Your task to perform on an android device: What is the capital of Italy? Image 0: 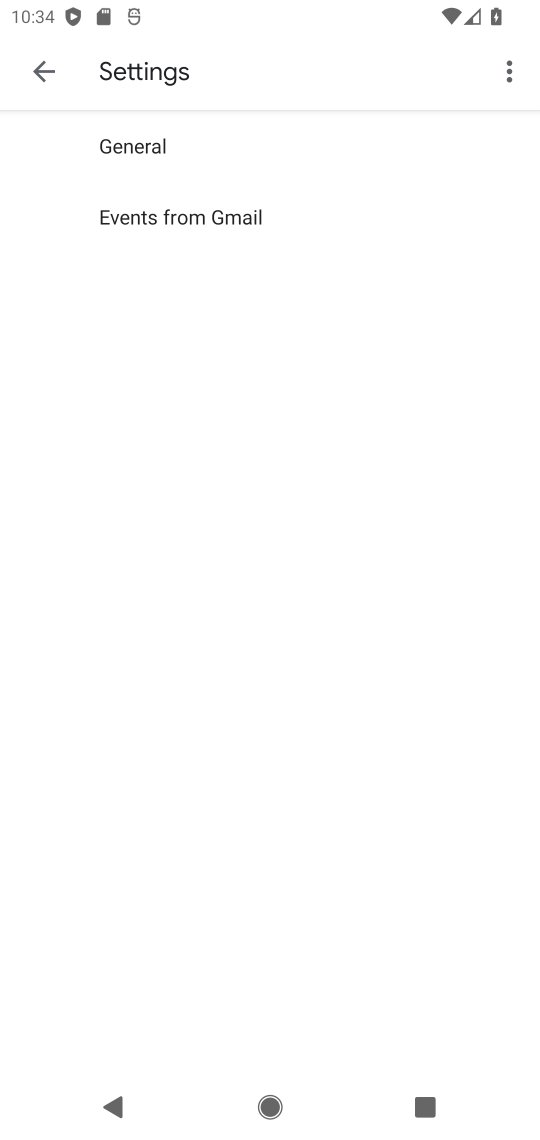
Step 0: press home button
Your task to perform on an android device: What is the capital of Italy? Image 1: 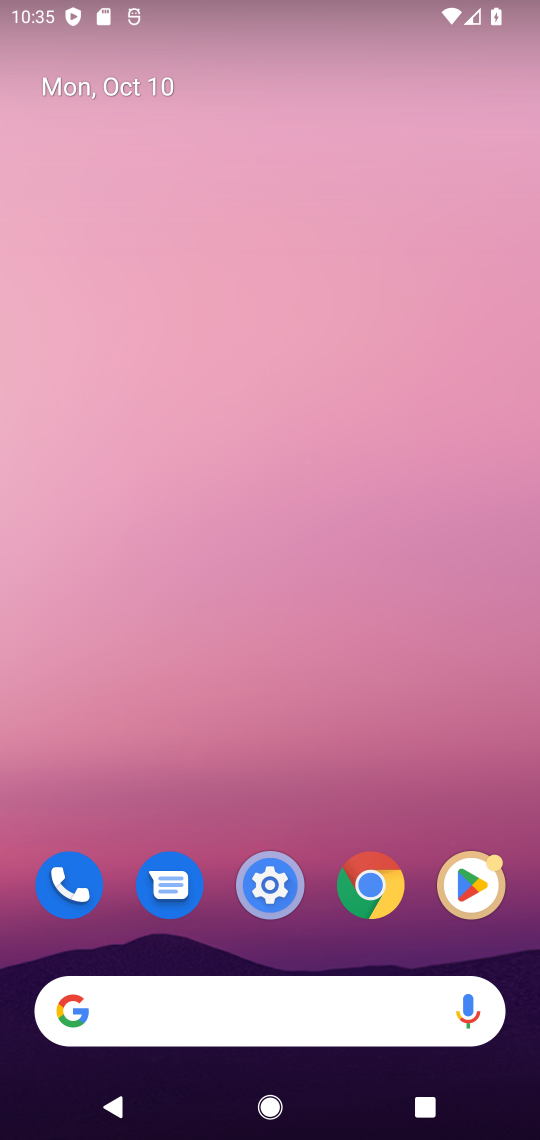
Step 1: drag from (310, 952) to (380, 21)
Your task to perform on an android device: What is the capital of Italy? Image 2: 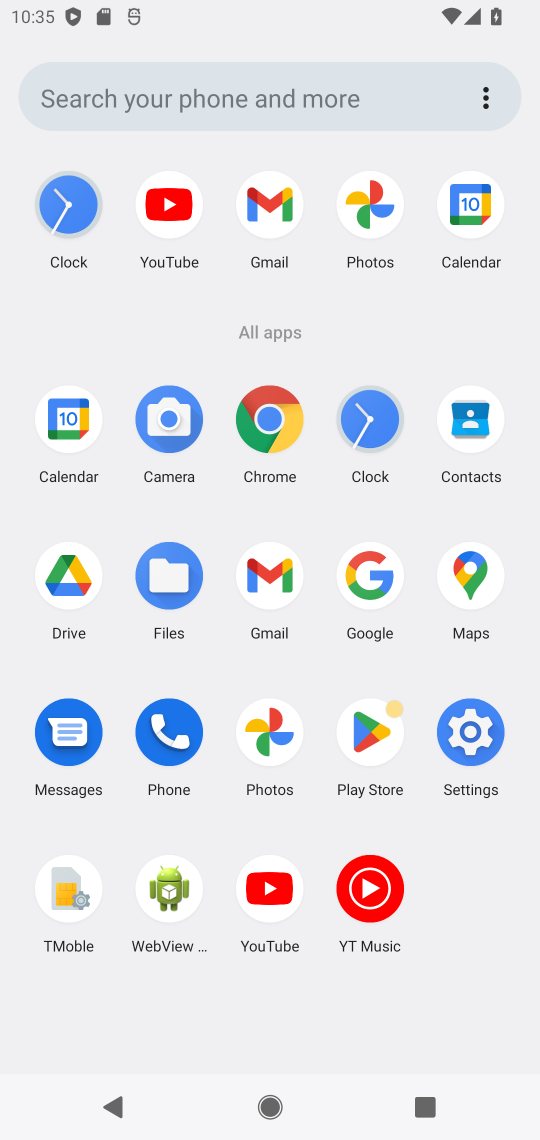
Step 2: click (376, 588)
Your task to perform on an android device: What is the capital of Italy? Image 3: 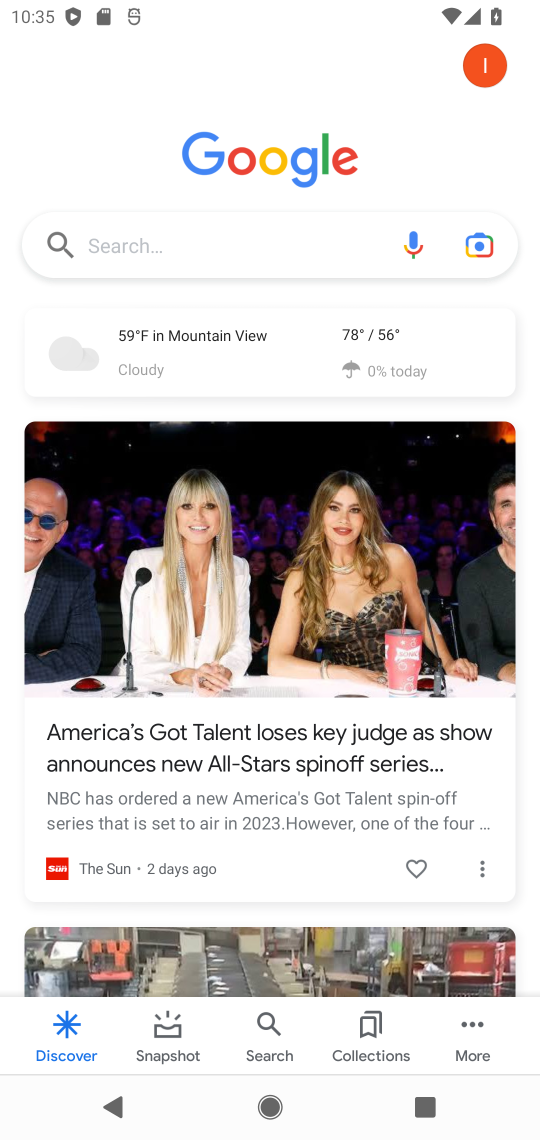
Step 3: click (262, 255)
Your task to perform on an android device: What is the capital of Italy? Image 4: 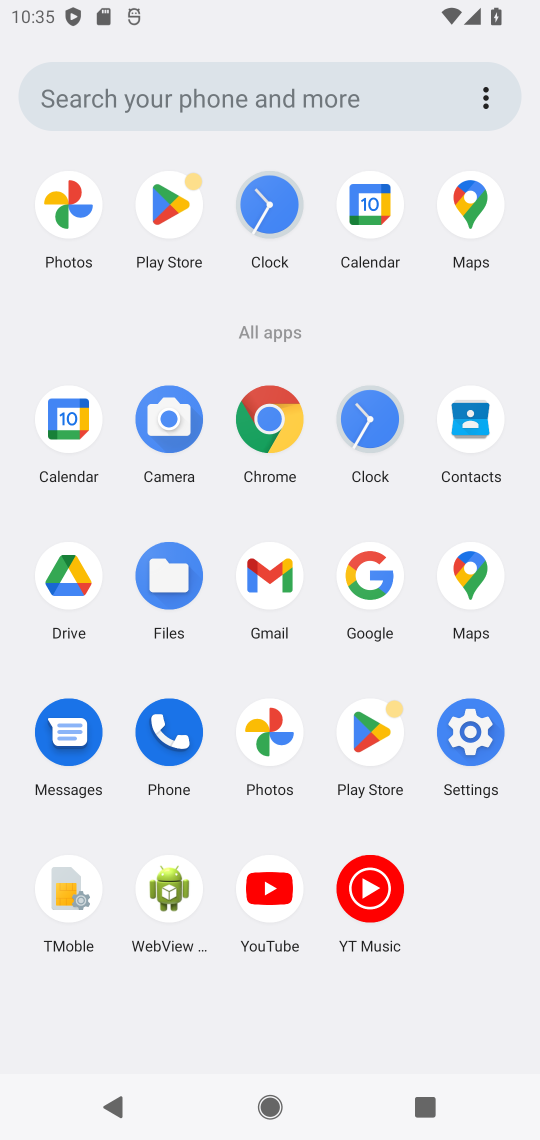
Step 4: type "capital of Italy"
Your task to perform on an android device: What is the capital of Italy? Image 5: 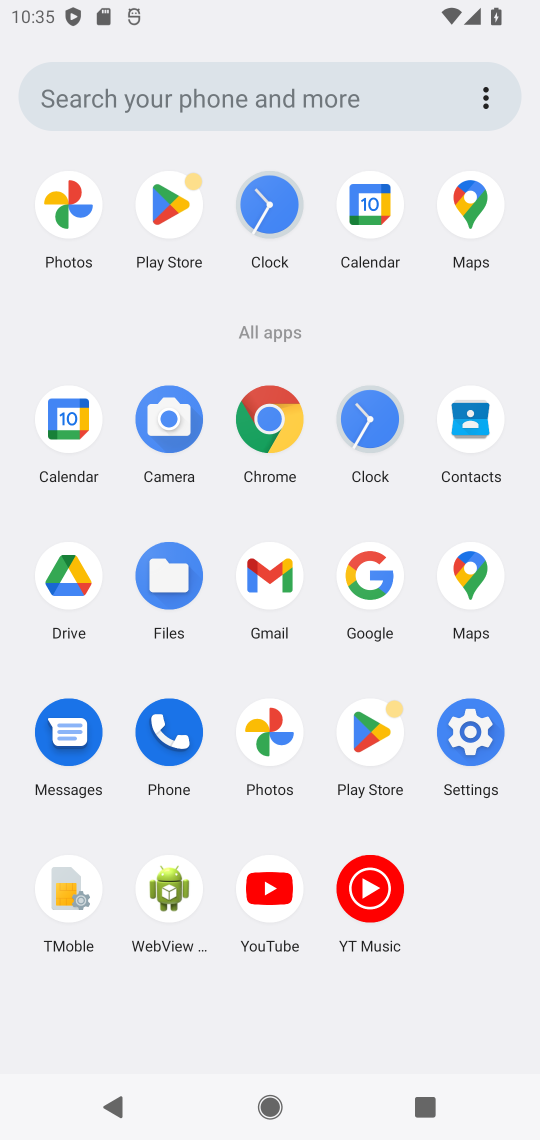
Step 5: click (366, 617)
Your task to perform on an android device: What is the capital of Italy? Image 6: 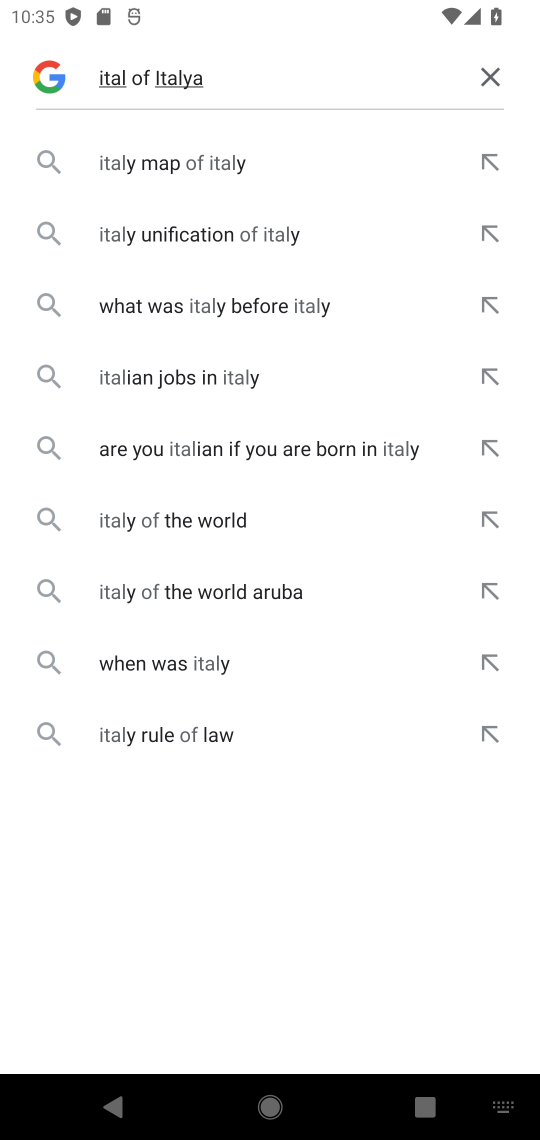
Step 6: click (495, 75)
Your task to perform on an android device: What is the capital of Italy? Image 7: 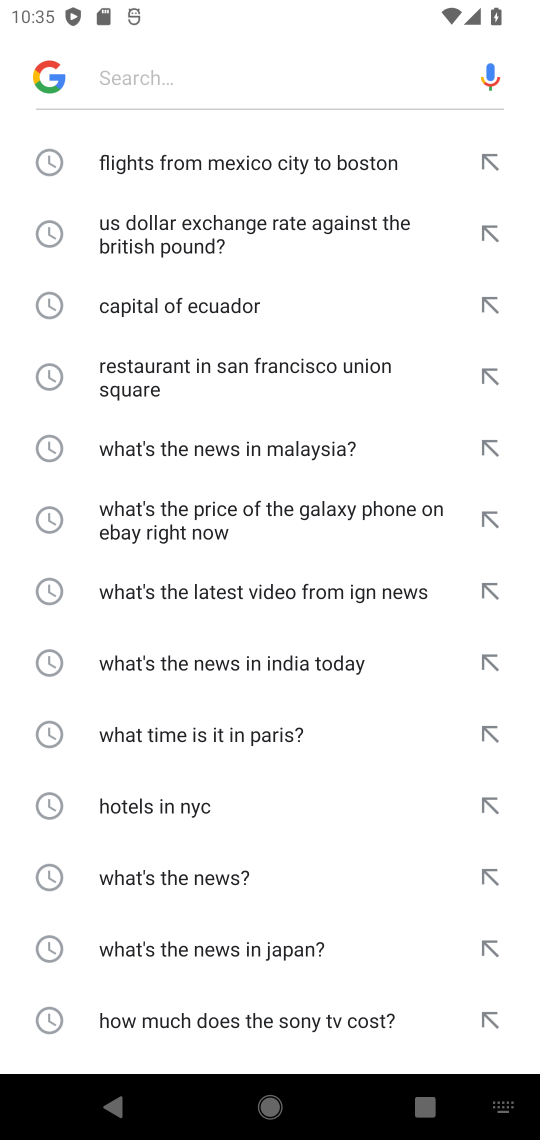
Step 7: type "capital of Italy"
Your task to perform on an android device: What is the capital of Italy? Image 8: 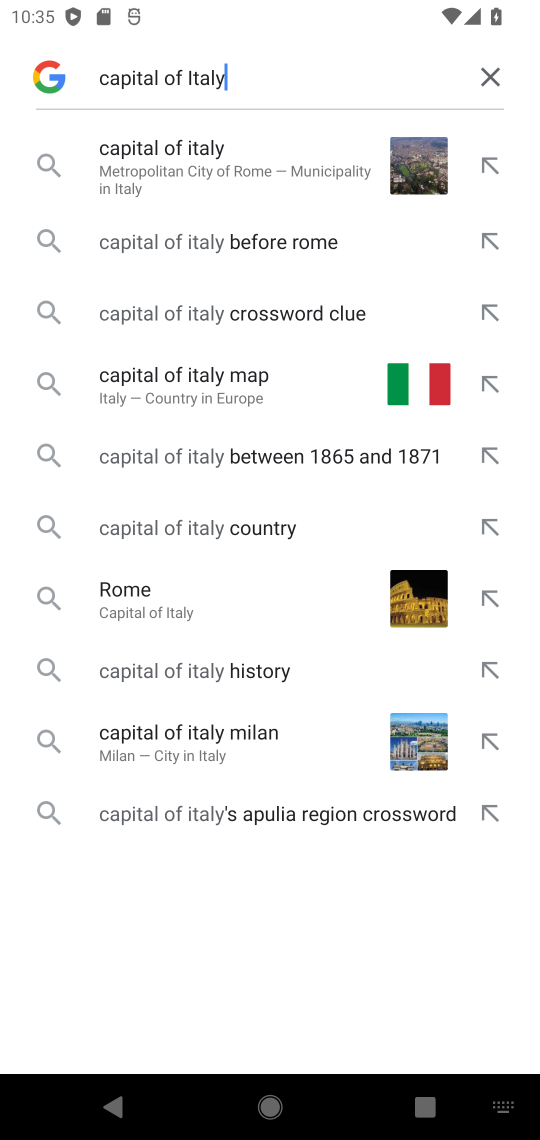
Step 8: click (304, 191)
Your task to perform on an android device: What is the capital of Italy? Image 9: 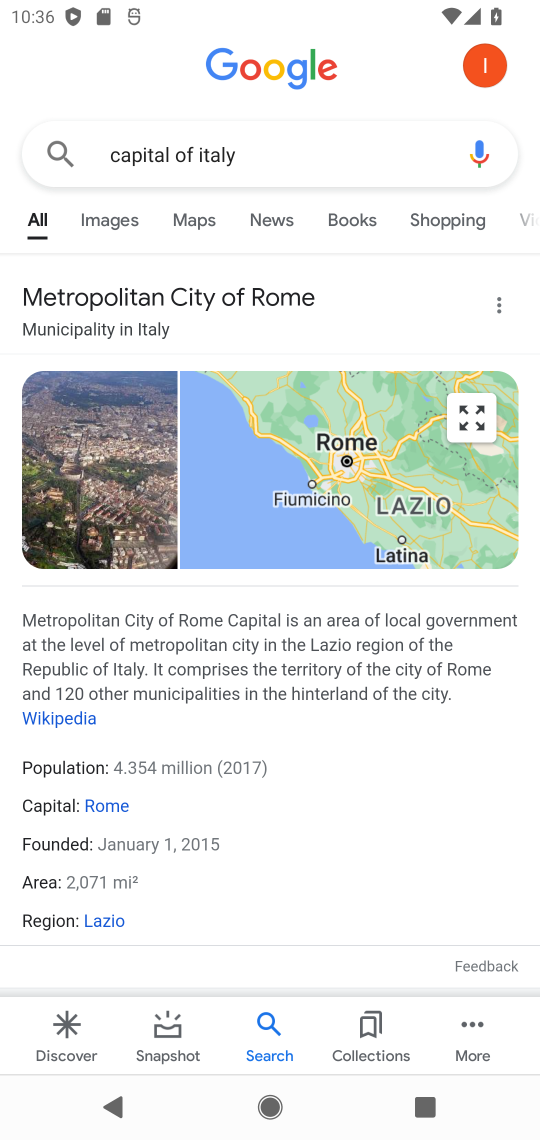
Step 9: task complete